Your task to perform on an android device: When is my next appointment? Image 0: 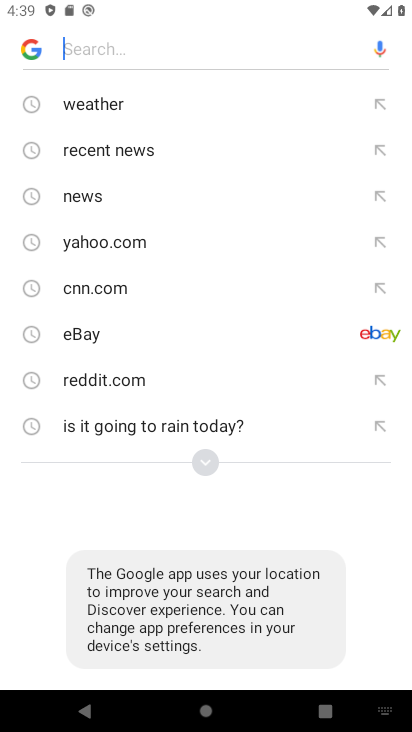
Step 0: press home button
Your task to perform on an android device: When is my next appointment? Image 1: 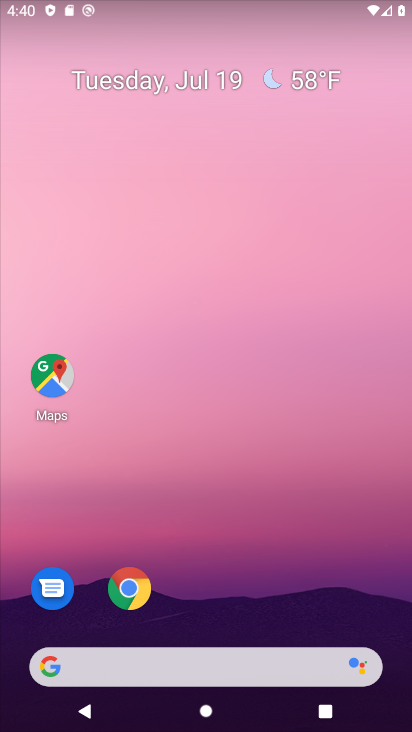
Step 1: drag from (304, 578) to (206, 76)
Your task to perform on an android device: When is my next appointment? Image 2: 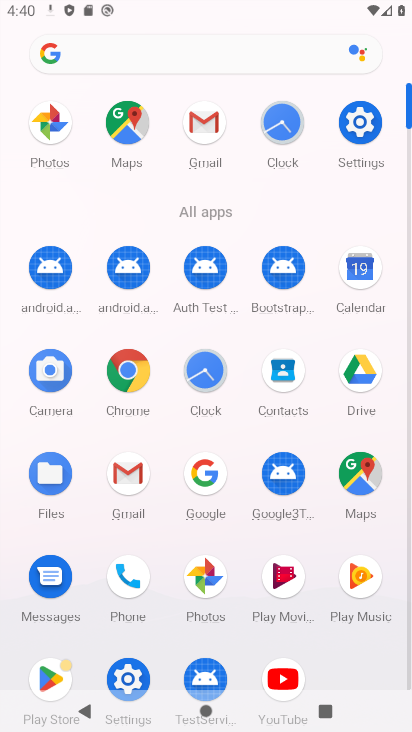
Step 2: click (360, 269)
Your task to perform on an android device: When is my next appointment? Image 3: 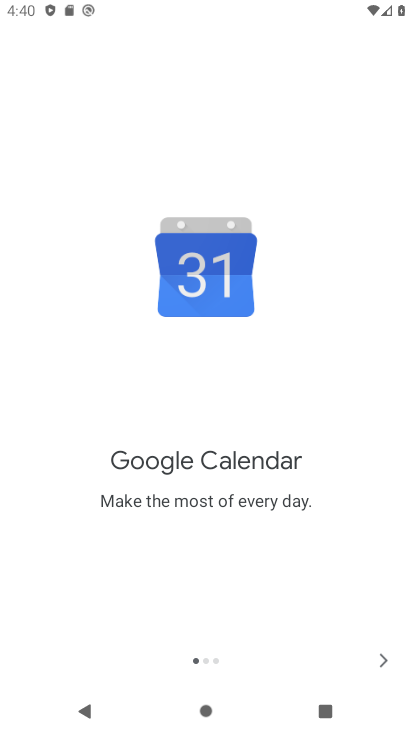
Step 3: click (377, 662)
Your task to perform on an android device: When is my next appointment? Image 4: 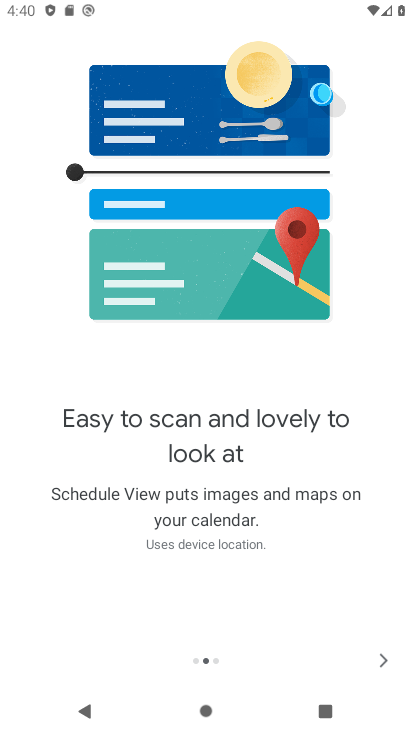
Step 4: click (377, 662)
Your task to perform on an android device: When is my next appointment? Image 5: 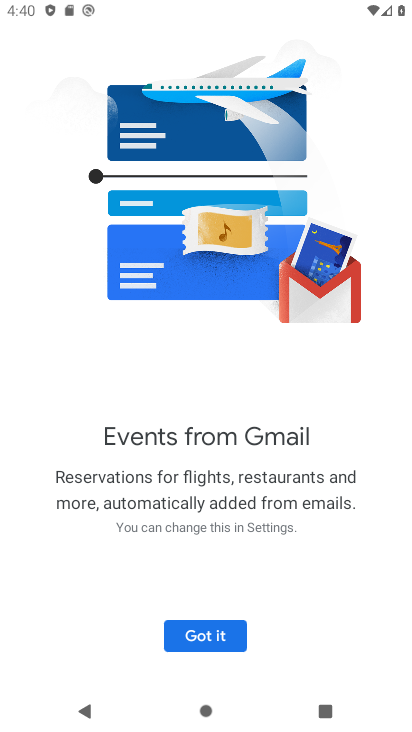
Step 5: click (205, 628)
Your task to perform on an android device: When is my next appointment? Image 6: 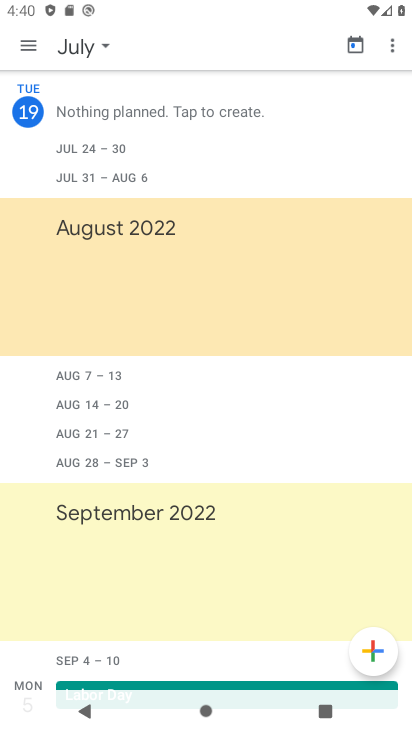
Step 6: click (75, 46)
Your task to perform on an android device: When is my next appointment? Image 7: 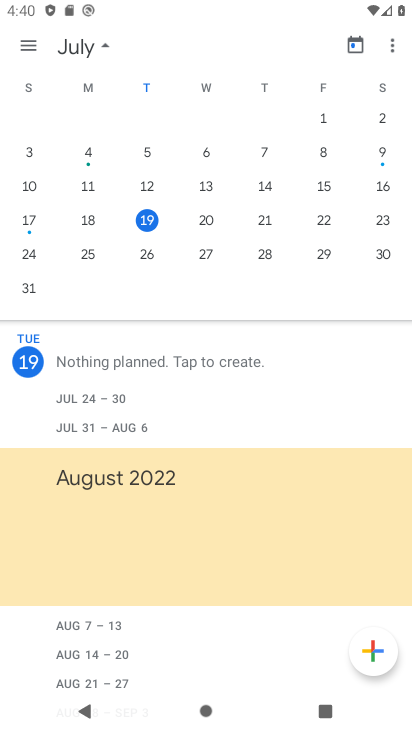
Step 7: click (156, 216)
Your task to perform on an android device: When is my next appointment? Image 8: 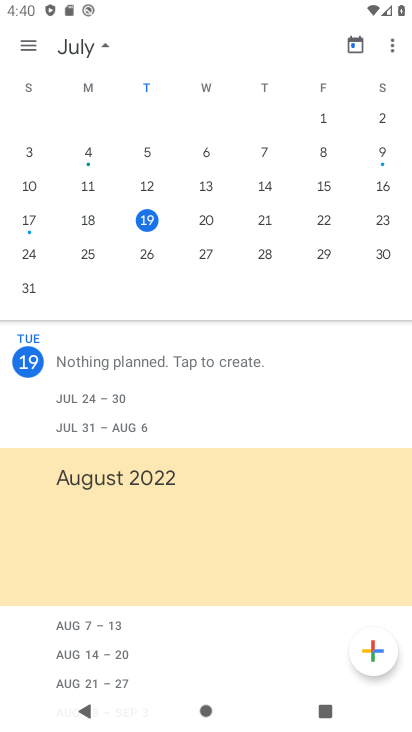
Step 8: click (144, 217)
Your task to perform on an android device: When is my next appointment? Image 9: 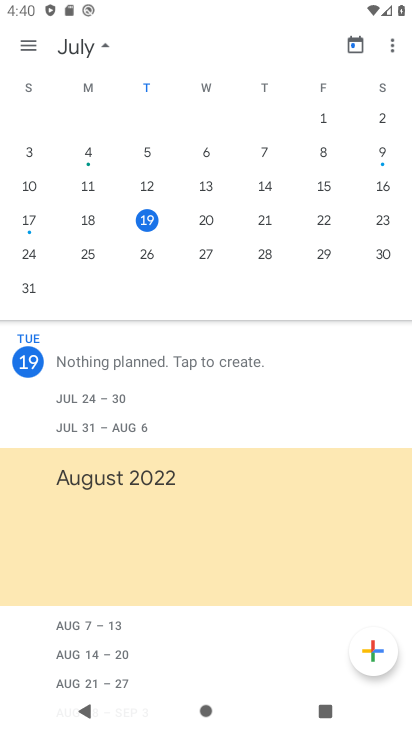
Step 9: click (31, 49)
Your task to perform on an android device: When is my next appointment? Image 10: 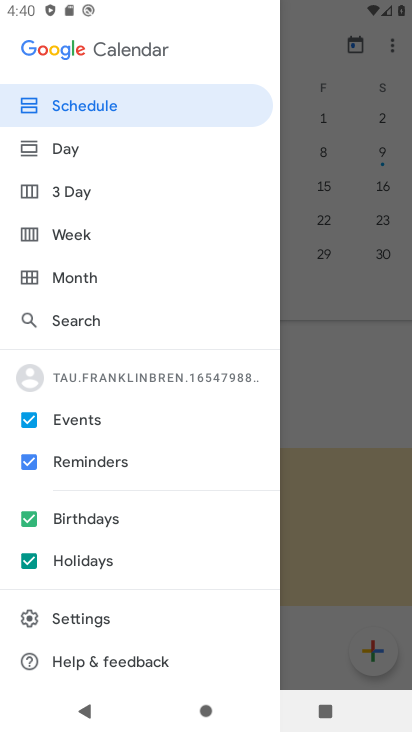
Step 10: click (68, 228)
Your task to perform on an android device: When is my next appointment? Image 11: 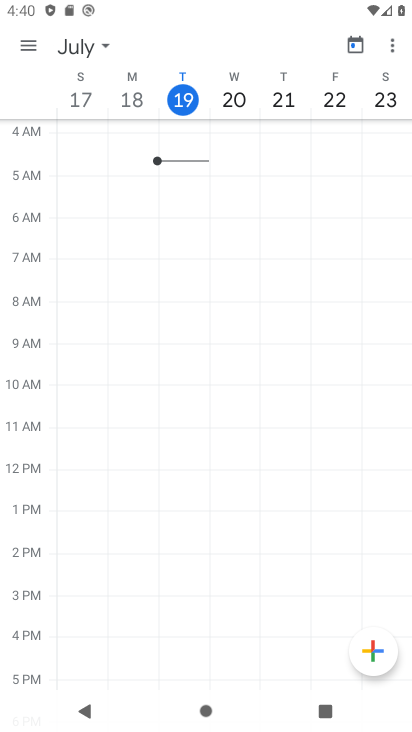
Step 11: task complete